Your task to perform on an android device: allow cookies in the chrome app Image 0: 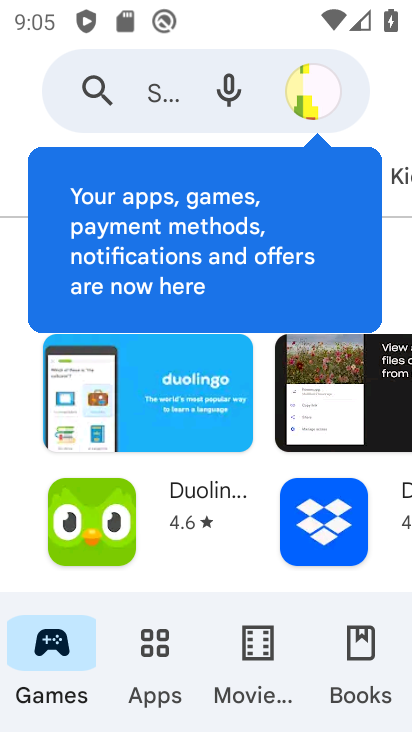
Step 0: press home button
Your task to perform on an android device: allow cookies in the chrome app Image 1: 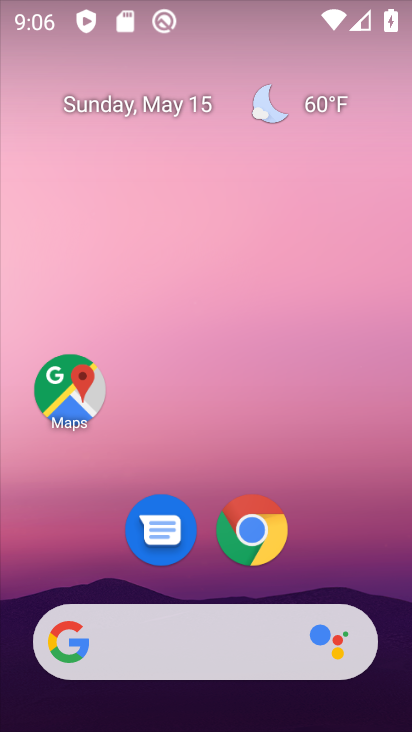
Step 1: drag from (392, 558) to (356, 118)
Your task to perform on an android device: allow cookies in the chrome app Image 2: 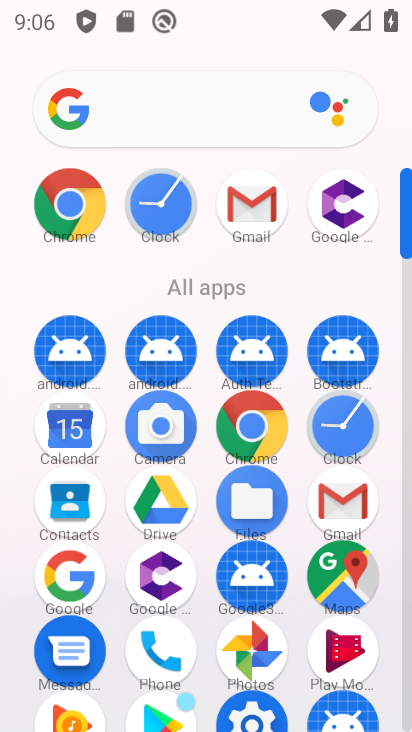
Step 2: click (252, 422)
Your task to perform on an android device: allow cookies in the chrome app Image 3: 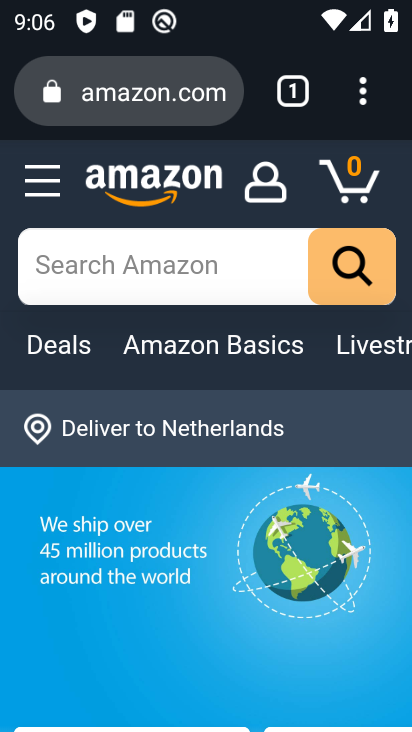
Step 3: click (363, 107)
Your task to perform on an android device: allow cookies in the chrome app Image 4: 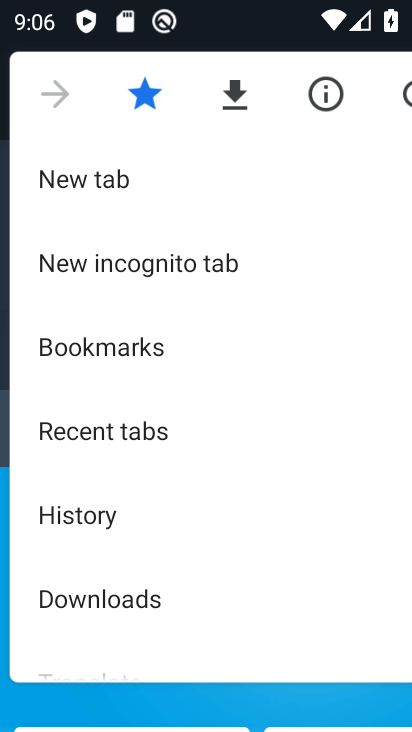
Step 4: drag from (303, 590) to (309, 353)
Your task to perform on an android device: allow cookies in the chrome app Image 5: 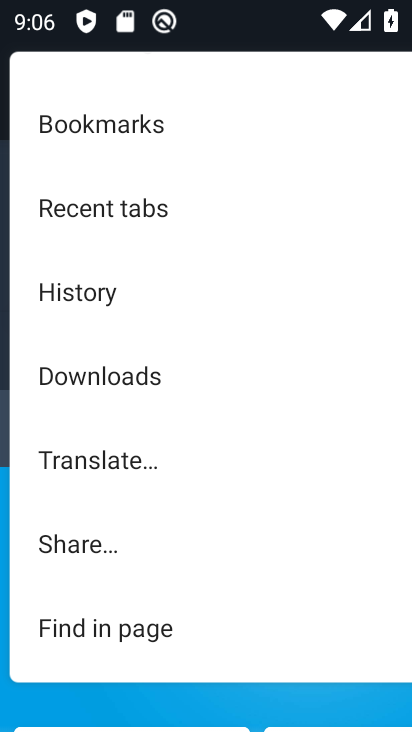
Step 5: drag from (285, 588) to (294, 312)
Your task to perform on an android device: allow cookies in the chrome app Image 6: 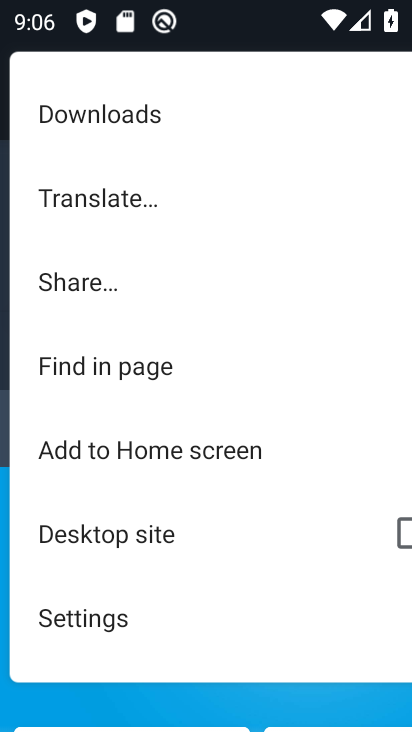
Step 6: drag from (273, 620) to (292, 399)
Your task to perform on an android device: allow cookies in the chrome app Image 7: 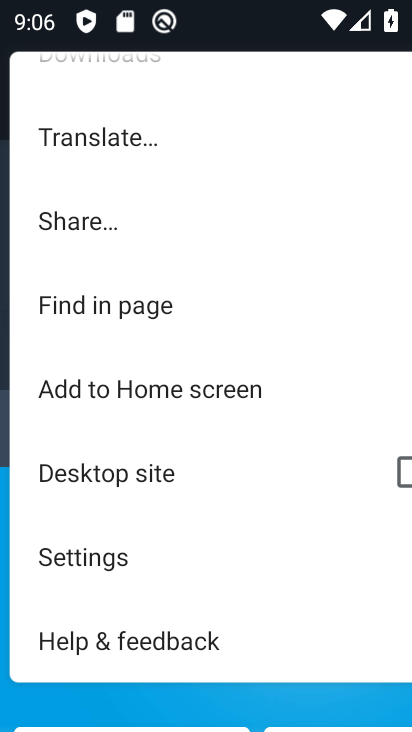
Step 7: click (152, 580)
Your task to perform on an android device: allow cookies in the chrome app Image 8: 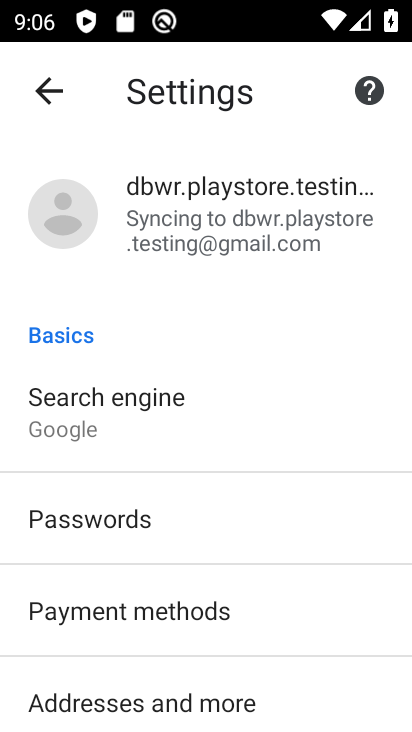
Step 8: drag from (350, 658) to (351, 496)
Your task to perform on an android device: allow cookies in the chrome app Image 9: 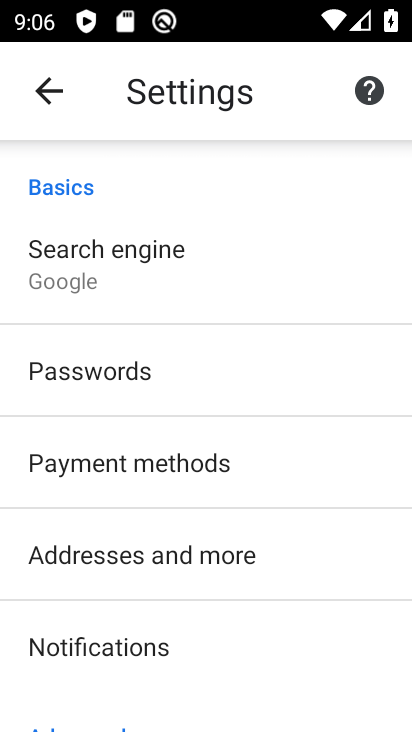
Step 9: drag from (343, 679) to (344, 541)
Your task to perform on an android device: allow cookies in the chrome app Image 10: 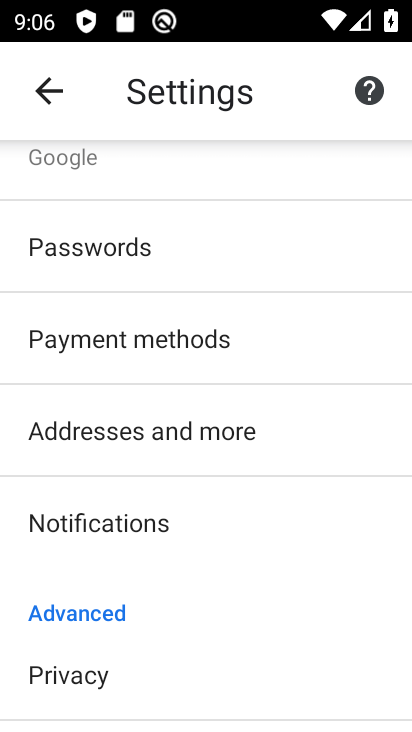
Step 10: drag from (320, 699) to (312, 519)
Your task to perform on an android device: allow cookies in the chrome app Image 11: 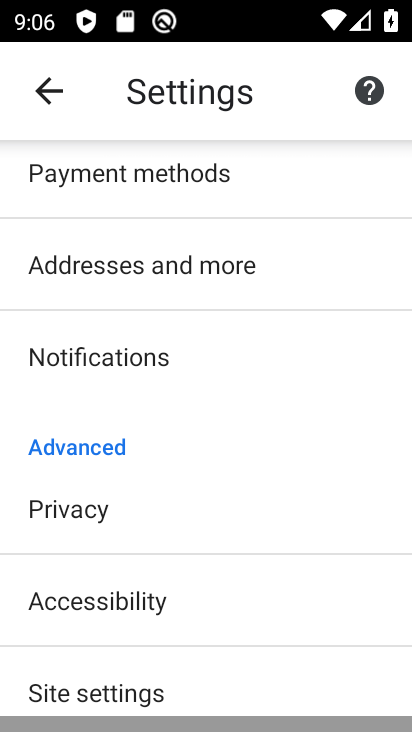
Step 11: drag from (304, 608) to (309, 442)
Your task to perform on an android device: allow cookies in the chrome app Image 12: 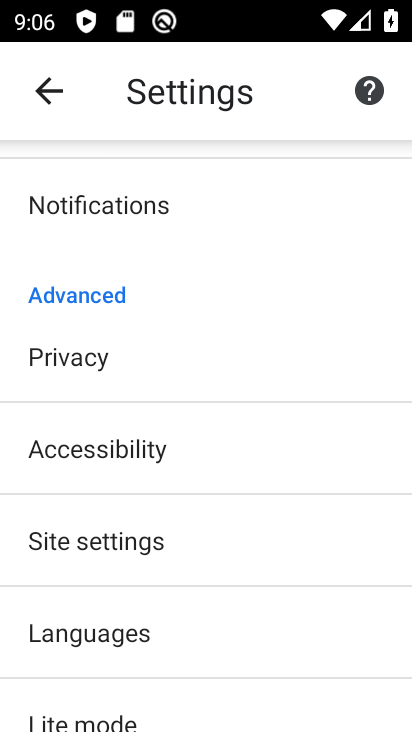
Step 12: click (228, 543)
Your task to perform on an android device: allow cookies in the chrome app Image 13: 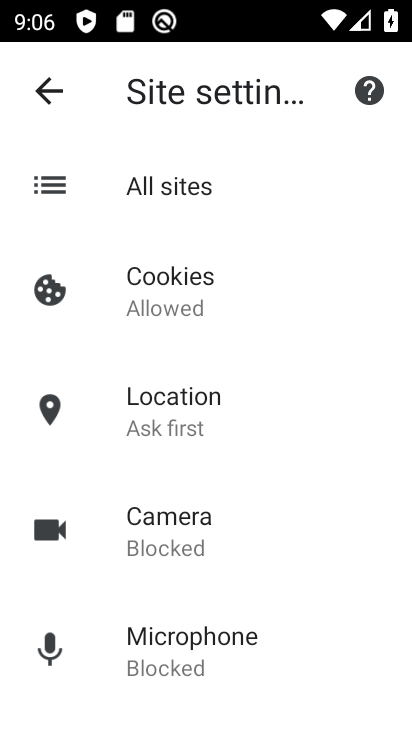
Step 13: drag from (318, 564) to (305, 418)
Your task to perform on an android device: allow cookies in the chrome app Image 14: 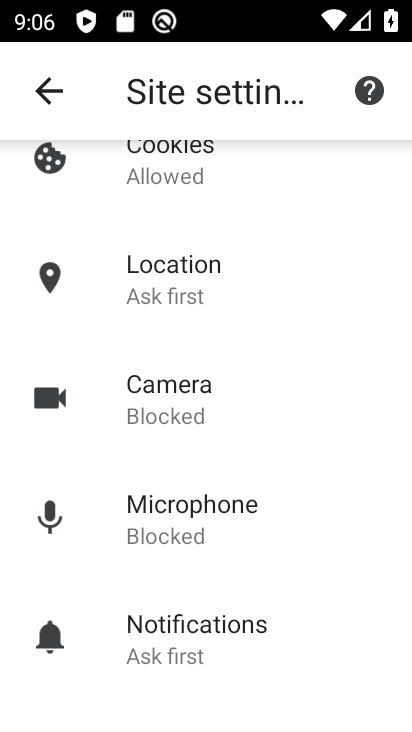
Step 14: drag from (315, 550) to (314, 426)
Your task to perform on an android device: allow cookies in the chrome app Image 15: 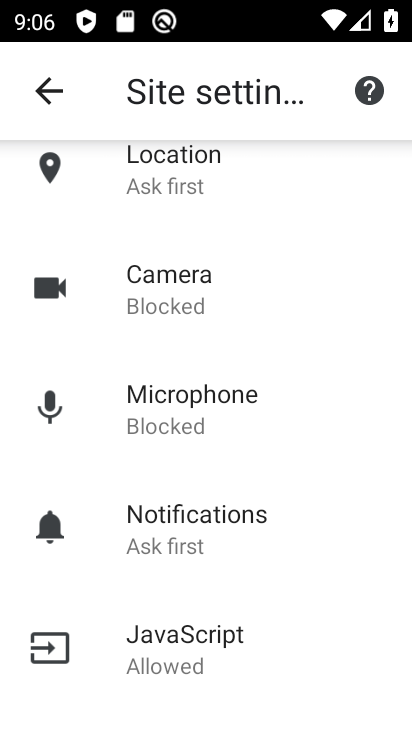
Step 15: drag from (317, 652) to (310, 450)
Your task to perform on an android device: allow cookies in the chrome app Image 16: 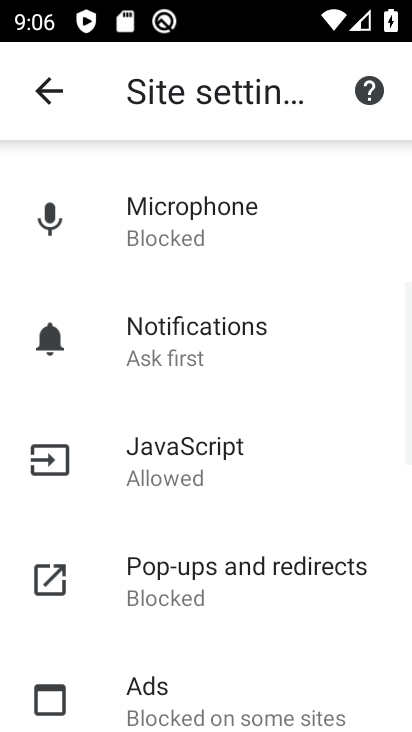
Step 16: drag from (323, 363) to (323, 612)
Your task to perform on an android device: allow cookies in the chrome app Image 17: 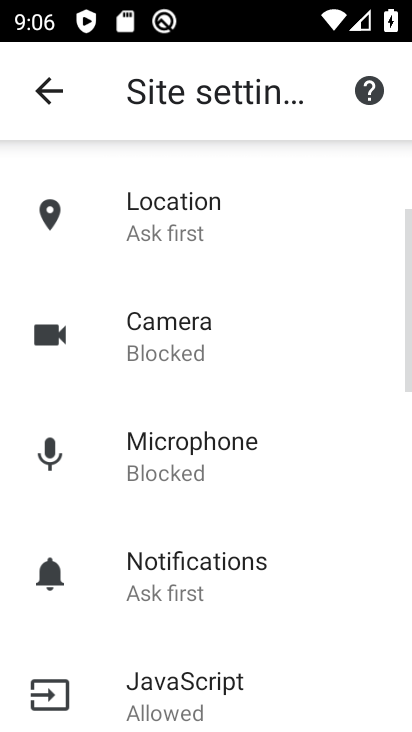
Step 17: drag from (314, 361) to (319, 577)
Your task to perform on an android device: allow cookies in the chrome app Image 18: 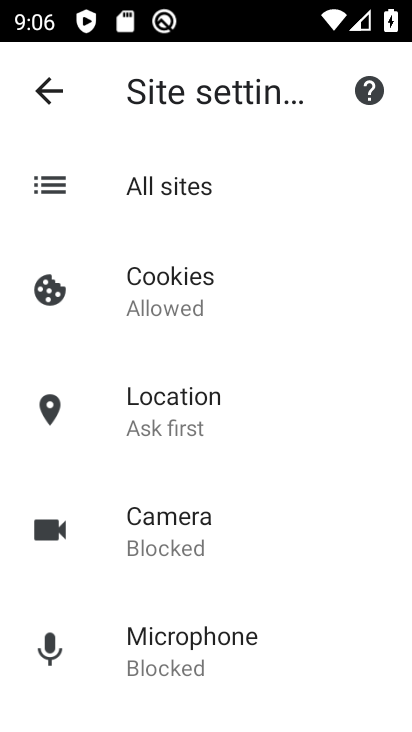
Step 18: drag from (302, 348) to (307, 538)
Your task to perform on an android device: allow cookies in the chrome app Image 19: 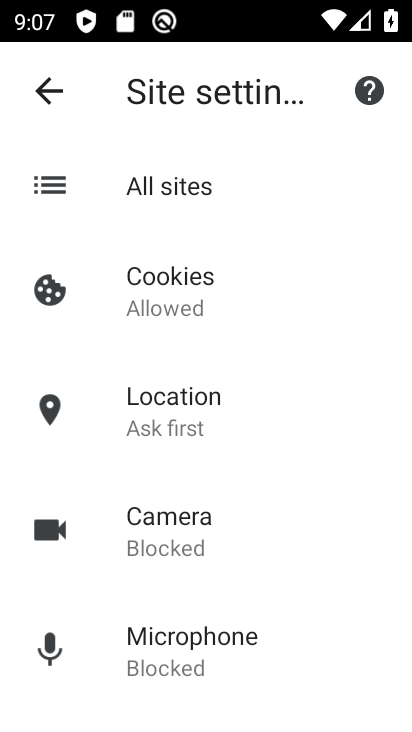
Step 19: click (201, 286)
Your task to perform on an android device: allow cookies in the chrome app Image 20: 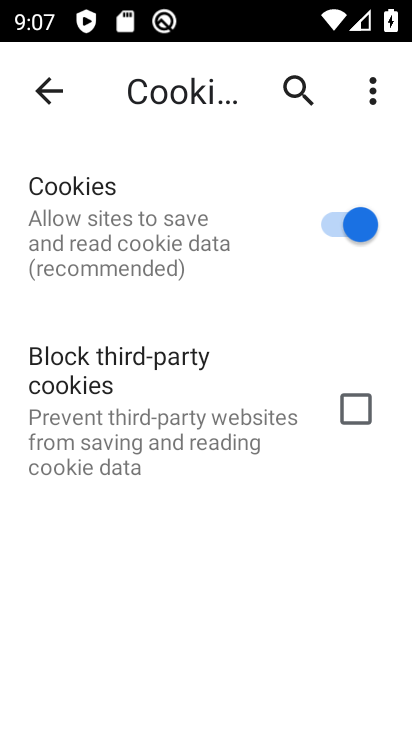
Step 20: task complete